Your task to perform on an android device: Open Google Maps Image 0: 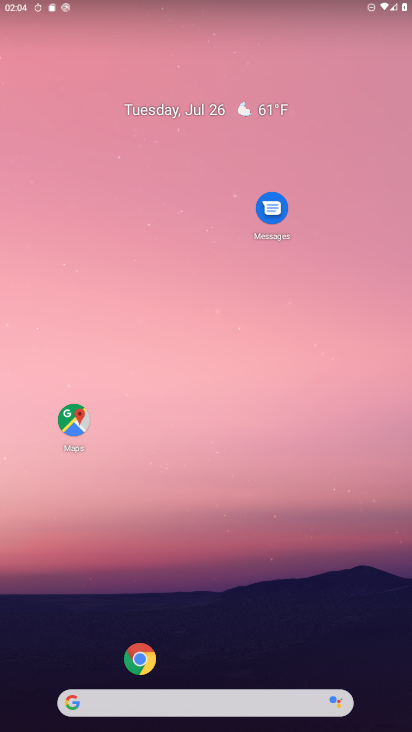
Step 0: click (73, 424)
Your task to perform on an android device: Open Google Maps Image 1: 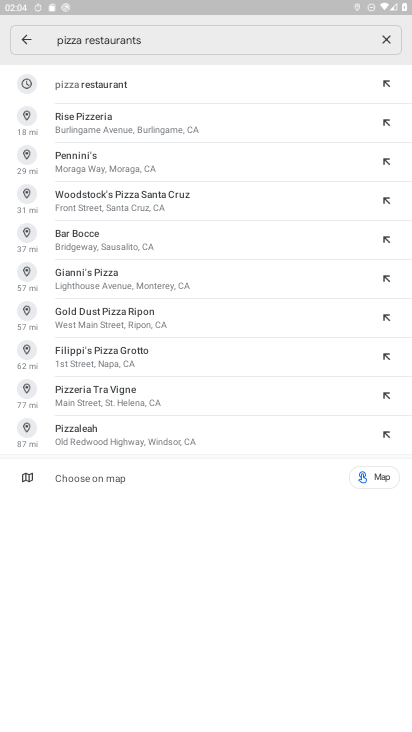
Step 1: click (12, 41)
Your task to perform on an android device: Open Google Maps Image 2: 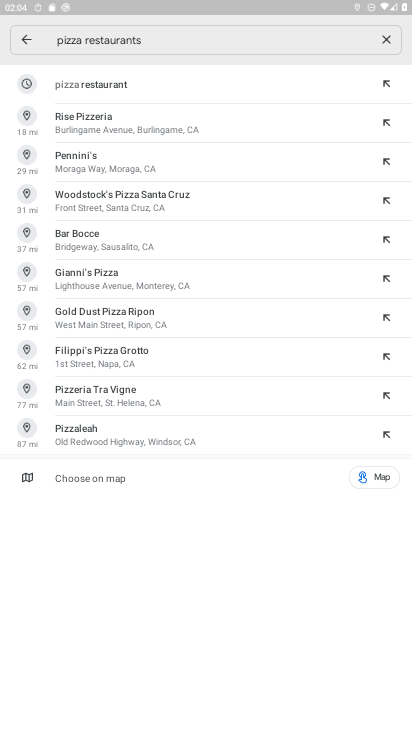
Step 2: click (15, 38)
Your task to perform on an android device: Open Google Maps Image 3: 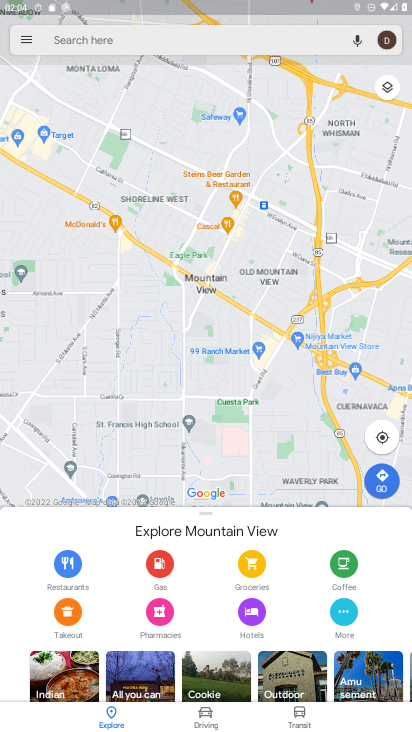
Step 3: task complete